Your task to perform on an android device: Open Chrome and go to the settings page Image 0: 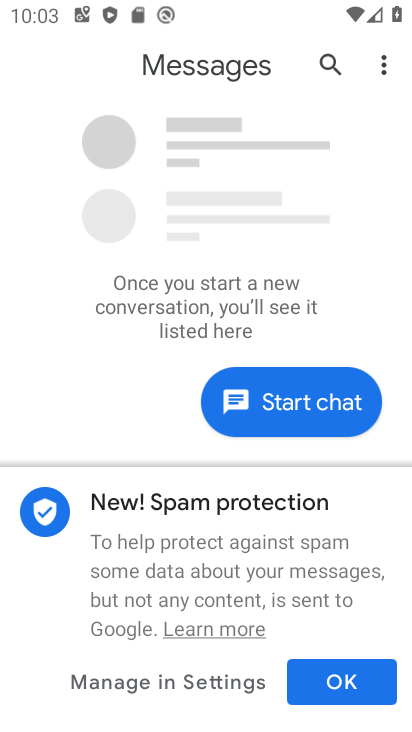
Step 0: press home button
Your task to perform on an android device: Open Chrome and go to the settings page Image 1: 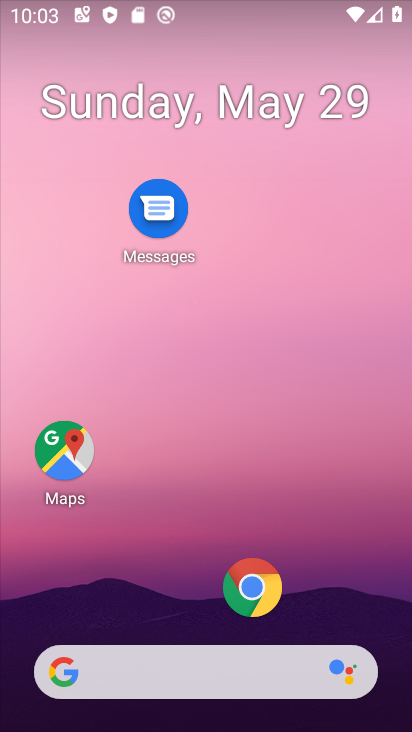
Step 1: click (252, 573)
Your task to perform on an android device: Open Chrome and go to the settings page Image 2: 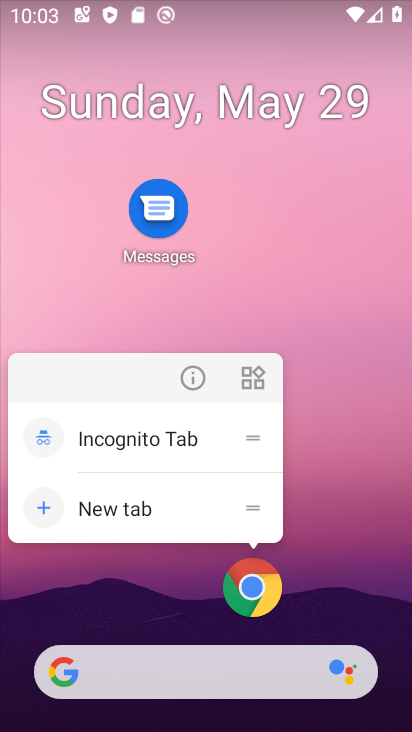
Step 2: click (248, 583)
Your task to perform on an android device: Open Chrome and go to the settings page Image 3: 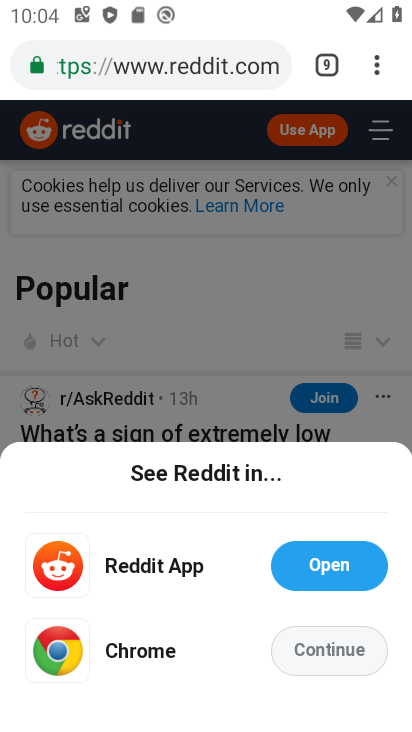
Step 3: task complete